Your task to perform on an android device: Go to Android settings Image 0: 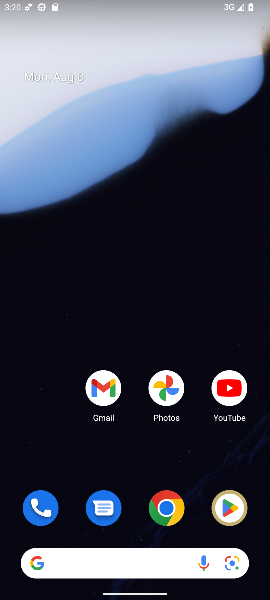
Step 0: drag from (140, 455) to (143, 114)
Your task to perform on an android device: Go to Android settings Image 1: 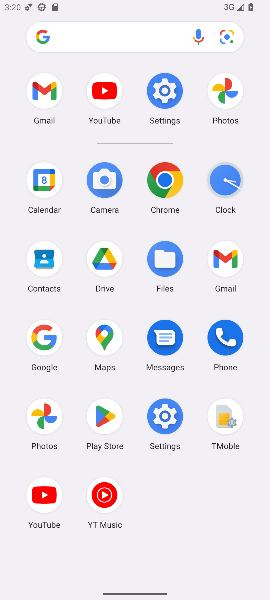
Step 1: click (162, 94)
Your task to perform on an android device: Go to Android settings Image 2: 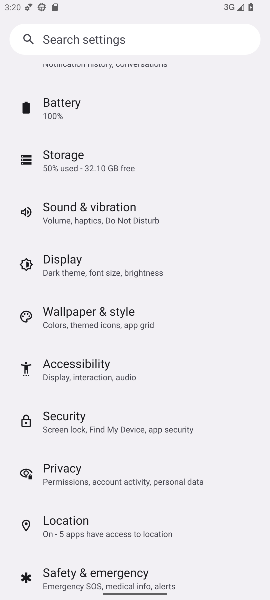
Step 2: drag from (176, 507) to (131, 49)
Your task to perform on an android device: Go to Android settings Image 3: 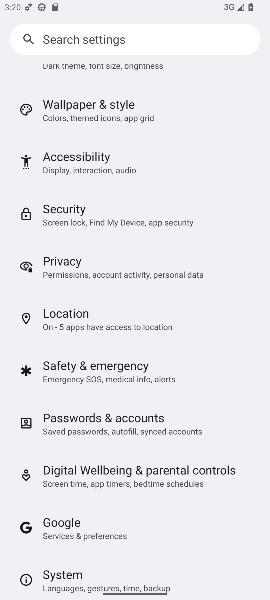
Step 3: drag from (181, 514) to (164, 170)
Your task to perform on an android device: Go to Android settings Image 4: 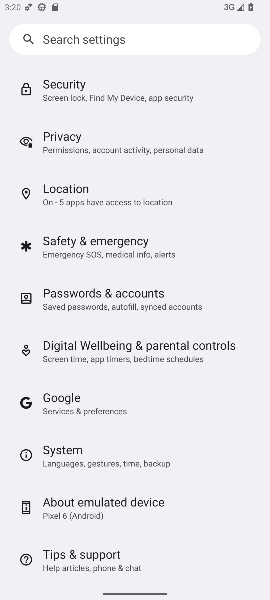
Step 4: click (112, 503)
Your task to perform on an android device: Go to Android settings Image 5: 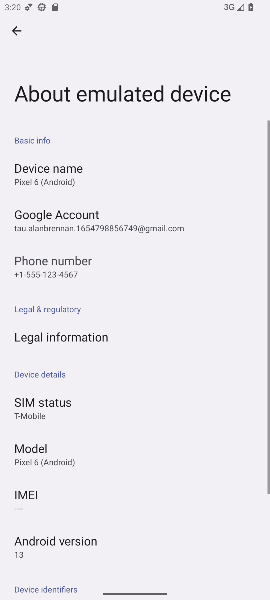
Step 5: click (68, 540)
Your task to perform on an android device: Go to Android settings Image 6: 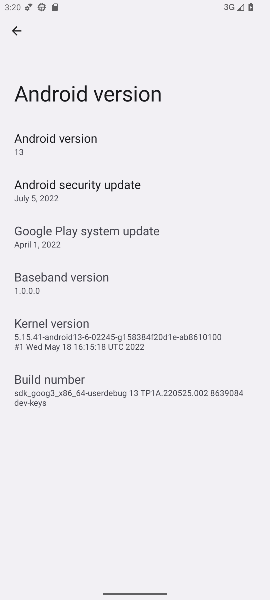
Step 6: click (18, 27)
Your task to perform on an android device: Go to Android settings Image 7: 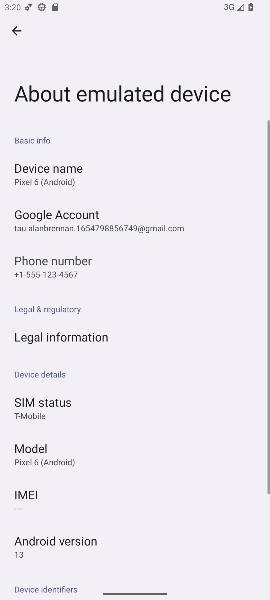
Step 7: task complete